Your task to perform on an android device: toggle translation in the chrome app Image 0: 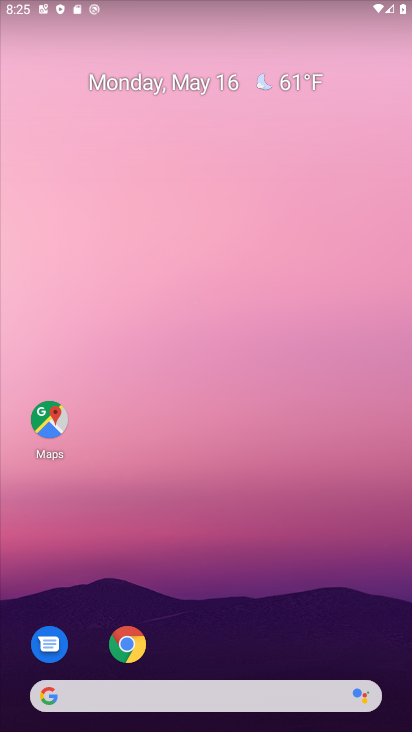
Step 0: click (131, 642)
Your task to perform on an android device: toggle translation in the chrome app Image 1: 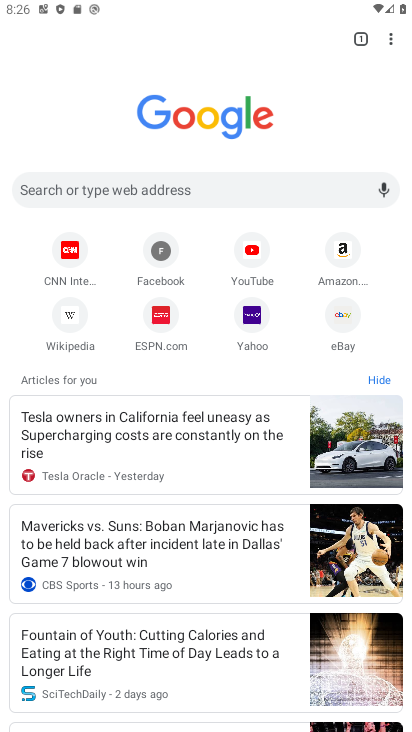
Step 1: click (384, 37)
Your task to perform on an android device: toggle translation in the chrome app Image 2: 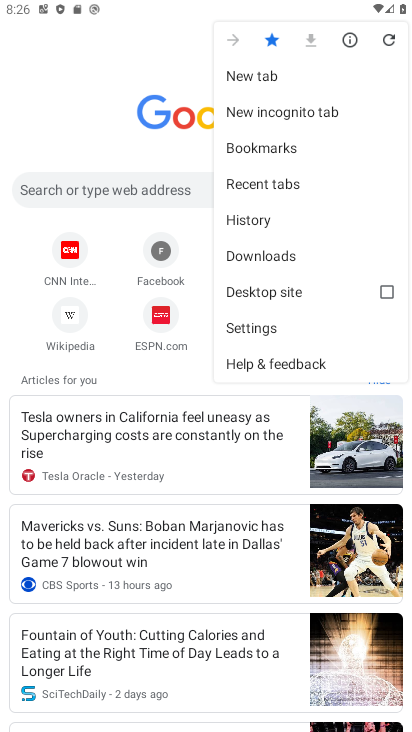
Step 2: click (281, 333)
Your task to perform on an android device: toggle translation in the chrome app Image 3: 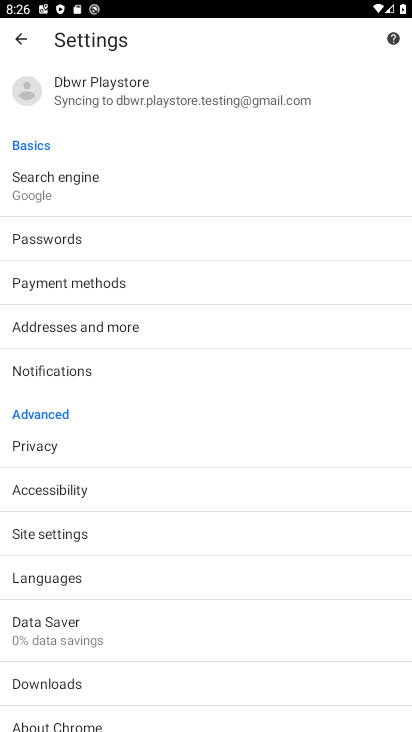
Step 3: click (62, 578)
Your task to perform on an android device: toggle translation in the chrome app Image 4: 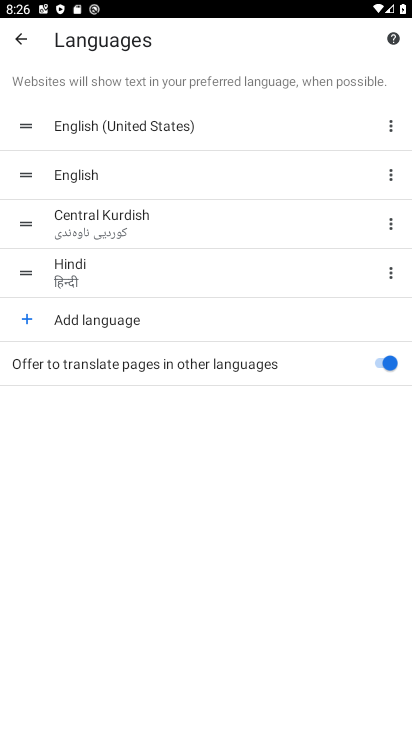
Step 4: click (379, 364)
Your task to perform on an android device: toggle translation in the chrome app Image 5: 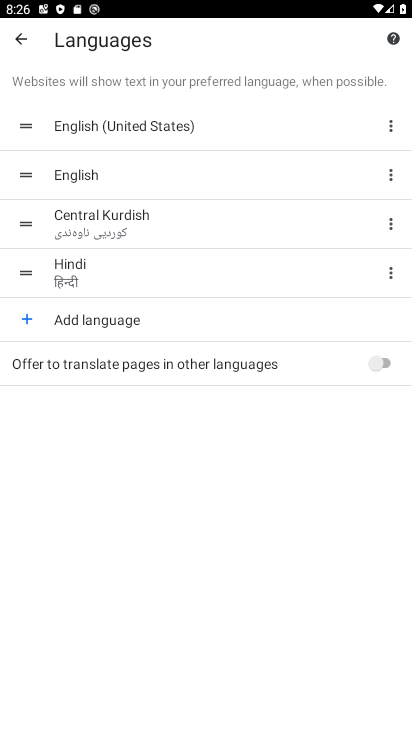
Step 5: task complete